Your task to perform on an android device: Open maps Image 0: 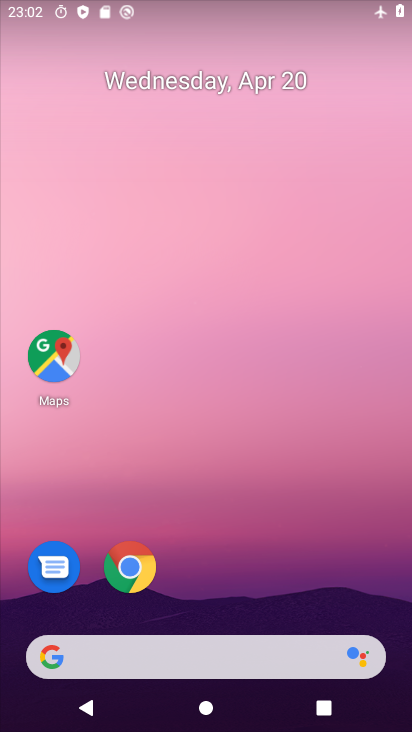
Step 0: drag from (236, 271) to (216, 150)
Your task to perform on an android device: Open maps Image 1: 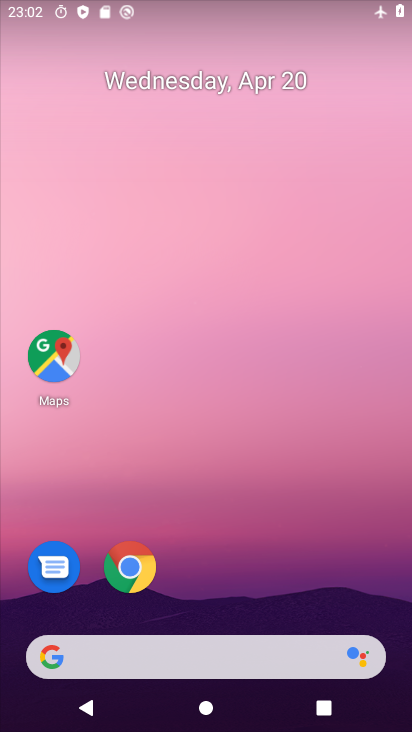
Step 1: drag from (188, 210) to (184, 172)
Your task to perform on an android device: Open maps Image 2: 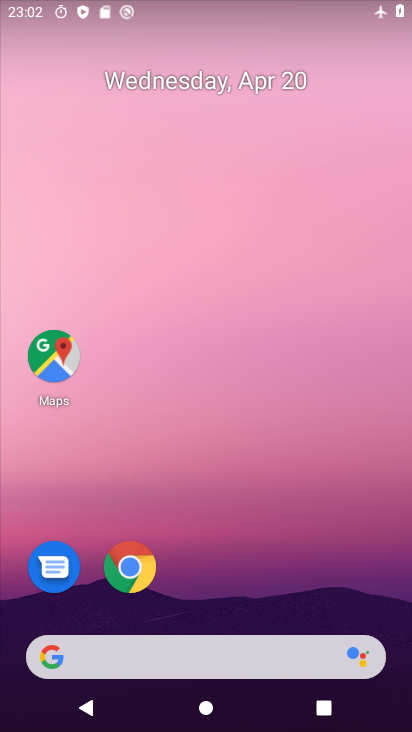
Step 2: click (178, 115)
Your task to perform on an android device: Open maps Image 3: 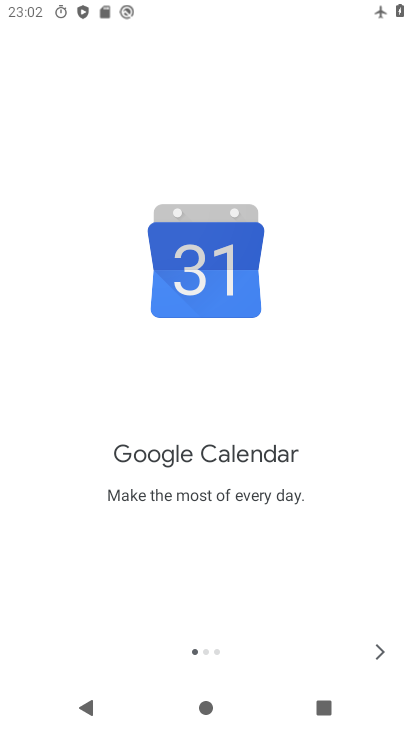
Step 3: press home button
Your task to perform on an android device: Open maps Image 4: 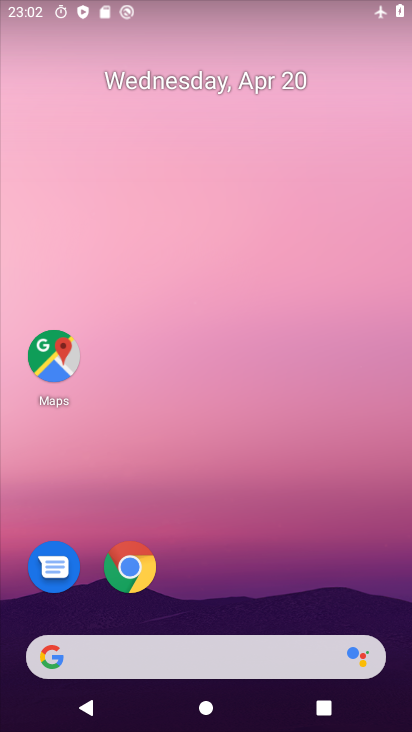
Step 4: drag from (236, 598) to (229, 207)
Your task to perform on an android device: Open maps Image 5: 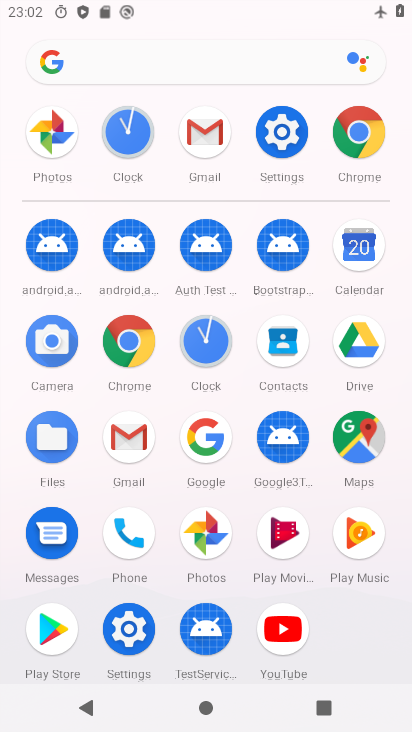
Step 5: click (354, 424)
Your task to perform on an android device: Open maps Image 6: 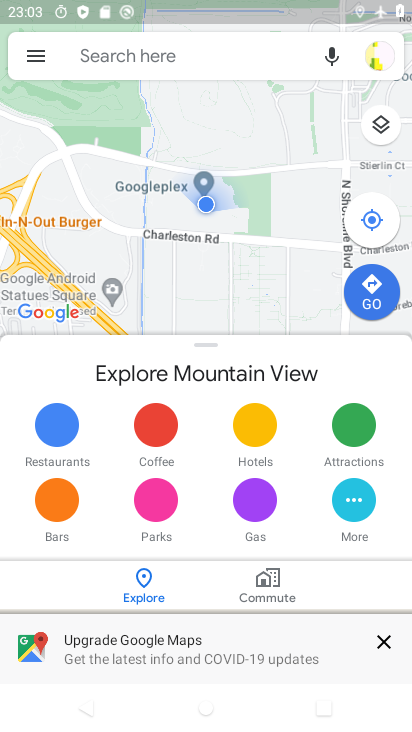
Step 6: click (375, 646)
Your task to perform on an android device: Open maps Image 7: 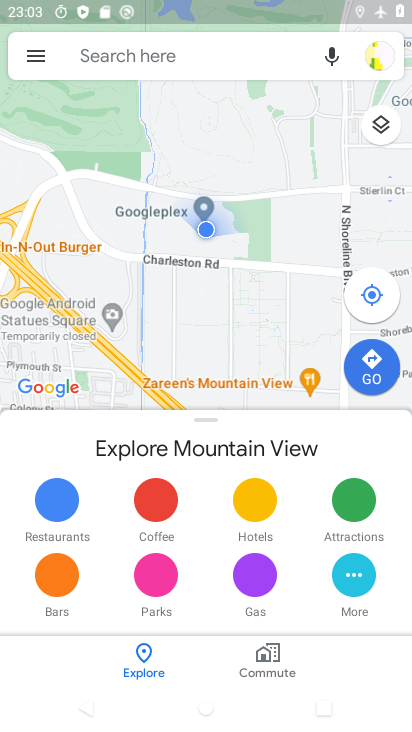
Step 7: task complete